Your task to perform on an android device: Is it going to rain today? Image 0: 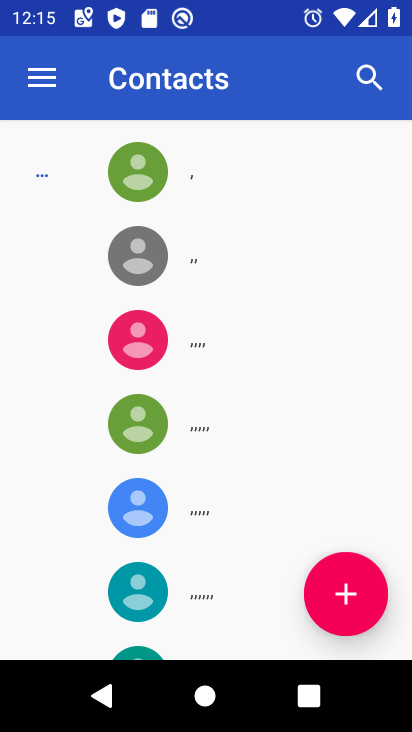
Step 0: press home button
Your task to perform on an android device: Is it going to rain today? Image 1: 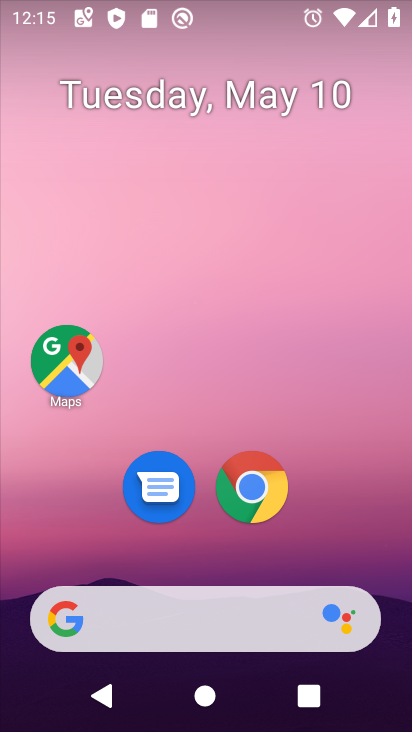
Step 1: click (231, 630)
Your task to perform on an android device: Is it going to rain today? Image 2: 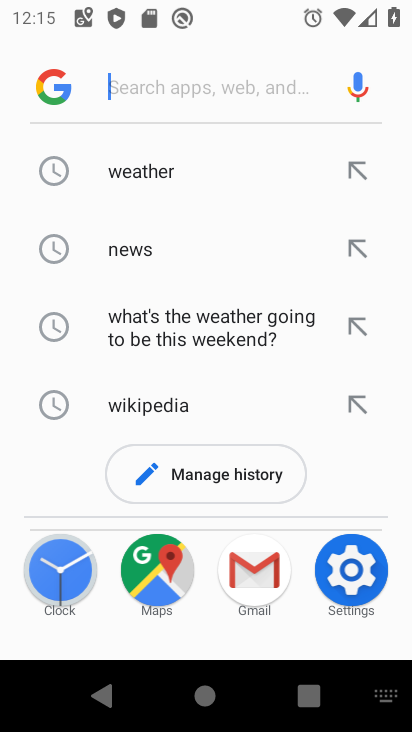
Step 2: click (221, 182)
Your task to perform on an android device: Is it going to rain today? Image 3: 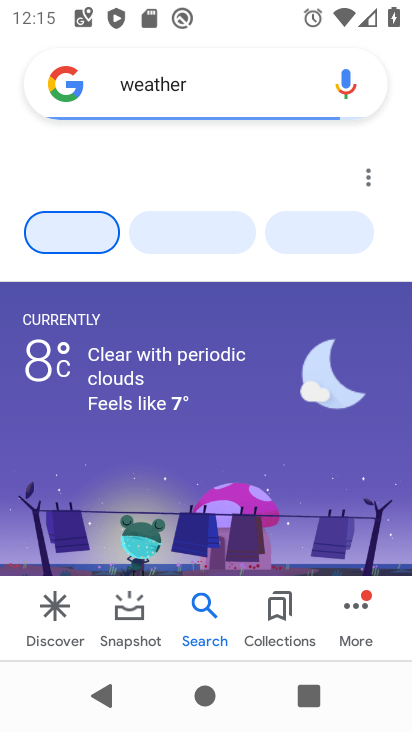
Step 3: task complete